Your task to perform on an android device: turn pop-ups off in chrome Image 0: 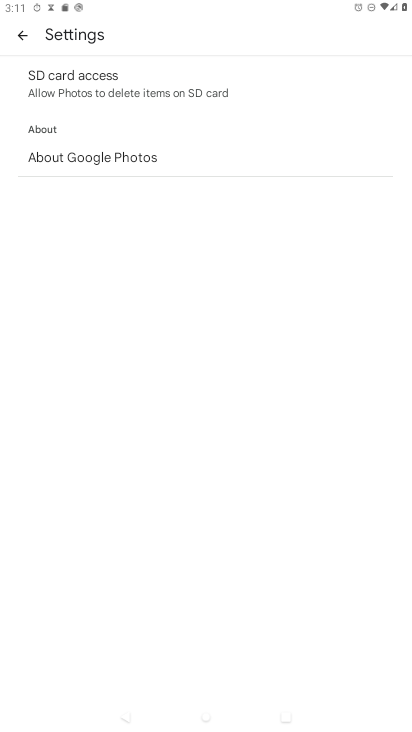
Step 0: press home button
Your task to perform on an android device: turn pop-ups off in chrome Image 1: 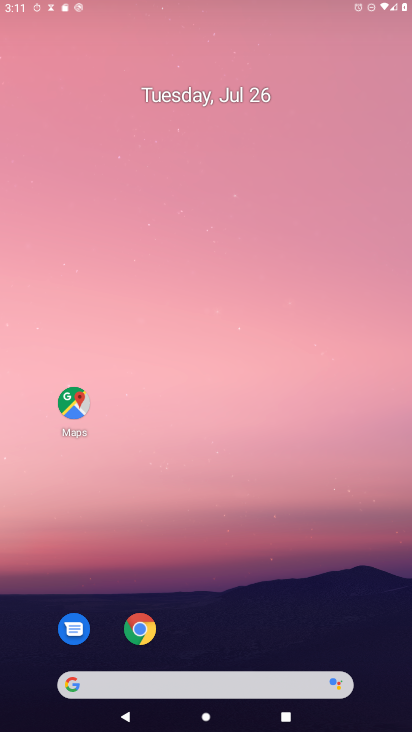
Step 1: drag from (224, 683) to (275, 129)
Your task to perform on an android device: turn pop-ups off in chrome Image 2: 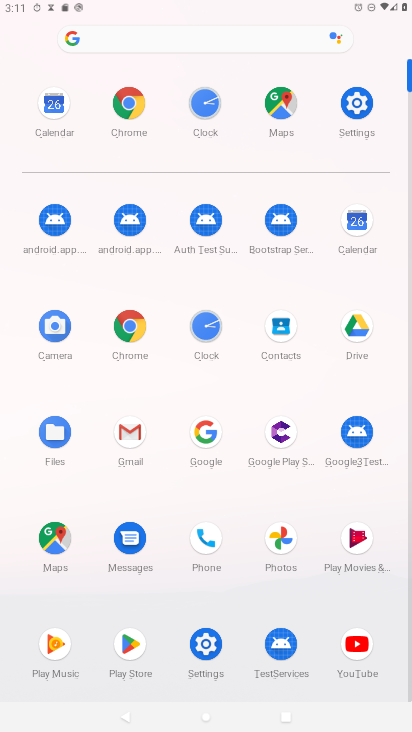
Step 2: click (132, 325)
Your task to perform on an android device: turn pop-ups off in chrome Image 3: 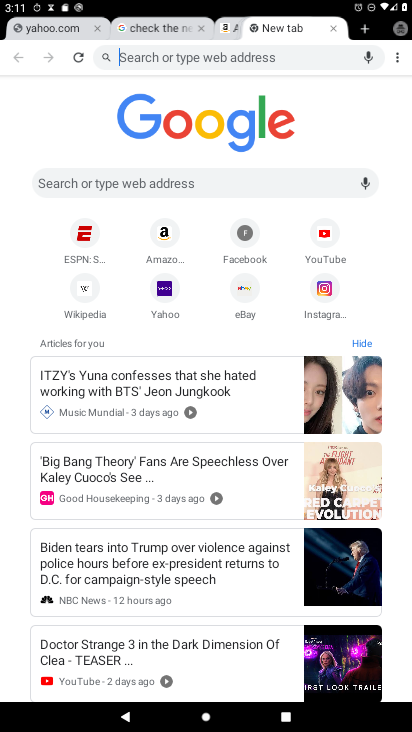
Step 3: drag from (394, 49) to (329, 263)
Your task to perform on an android device: turn pop-ups off in chrome Image 4: 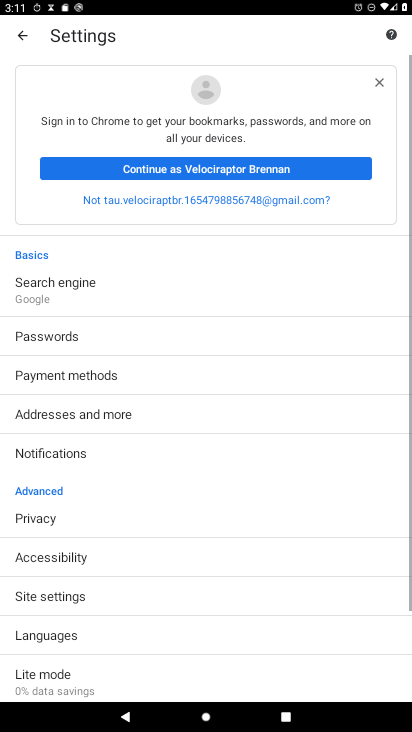
Step 4: drag from (232, 625) to (211, 150)
Your task to perform on an android device: turn pop-ups off in chrome Image 5: 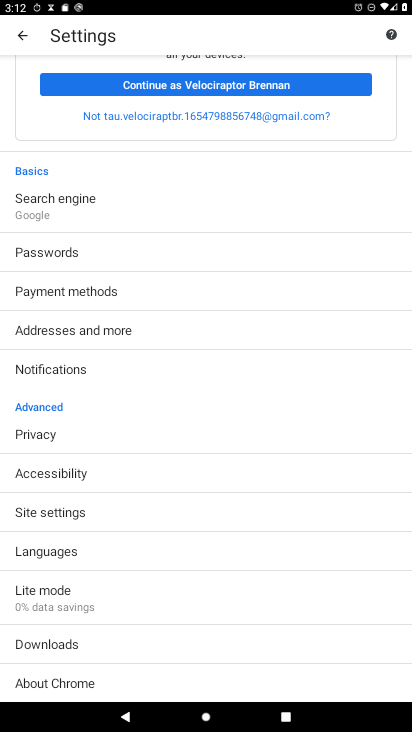
Step 5: click (103, 514)
Your task to perform on an android device: turn pop-ups off in chrome Image 6: 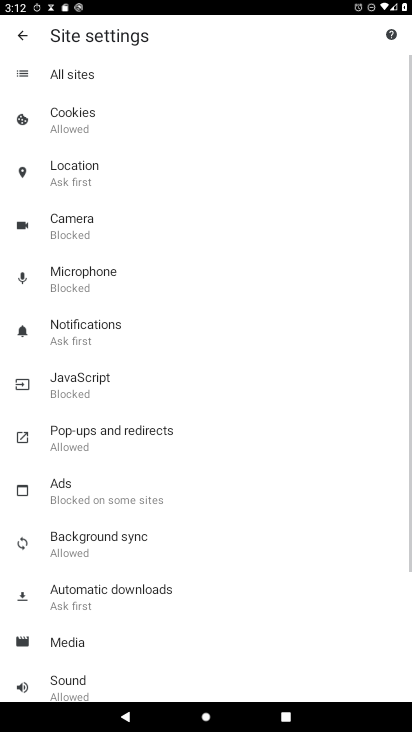
Step 6: click (123, 448)
Your task to perform on an android device: turn pop-ups off in chrome Image 7: 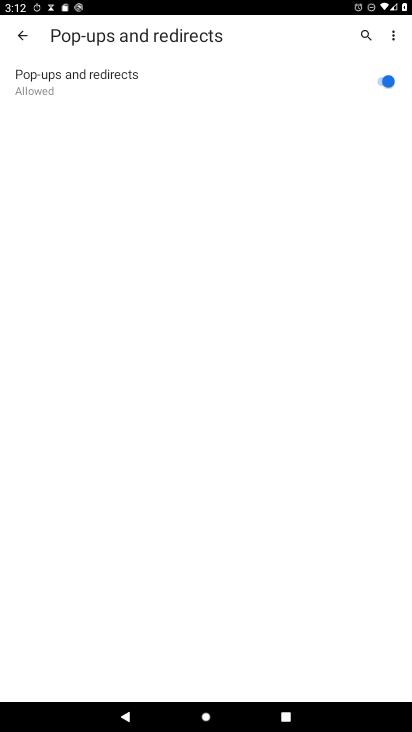
Step 7: click (383, 76)
Your task to perform on an android device: turn pop-ups off in chrome Image 8: 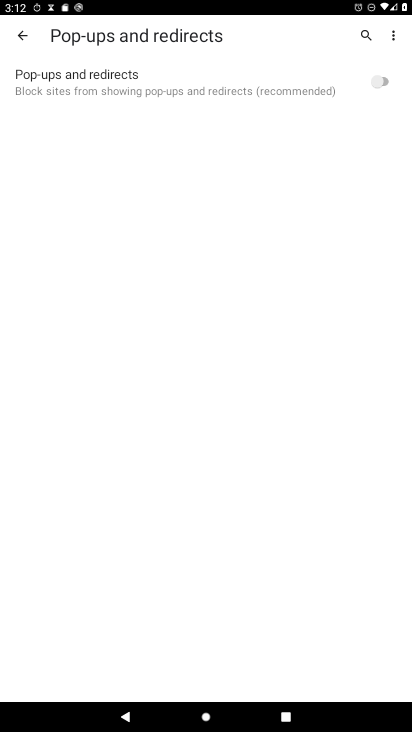
Step 8: task complete